Your task to perform on an android device: Search for vegetarian restaurants on Maps Image 0: 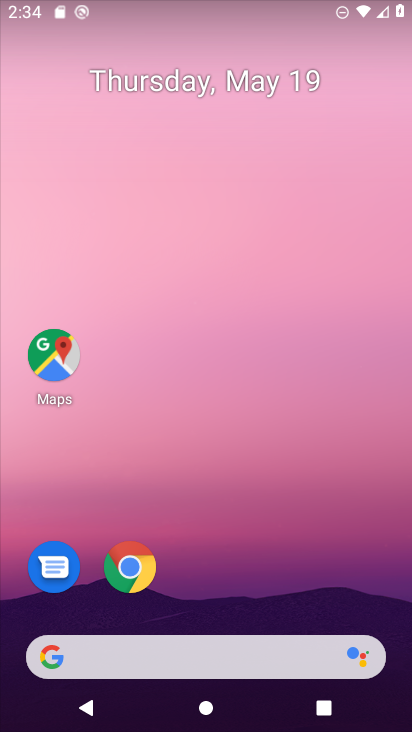
Step 0: click (43, 347)
Your task to perform on an android device: Search for vegetarian restaurants on Maps Image 1: 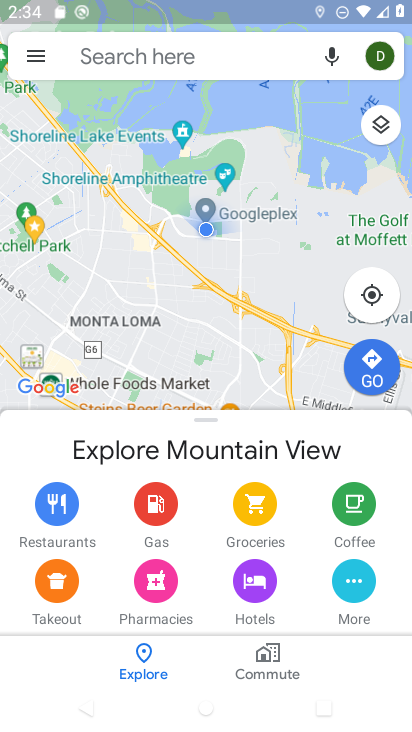
Step 1: click (220, 49)
Your task to perform on an android device: Search for vegetarian restaurants on Maps Image 2: 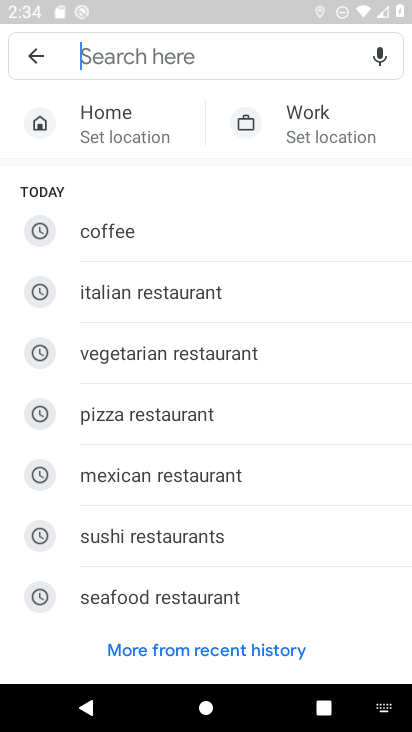
Step 2: click (176, 344)
Your task to perform on an android device: Search for vegetarian restaurants on Maps Image 3: 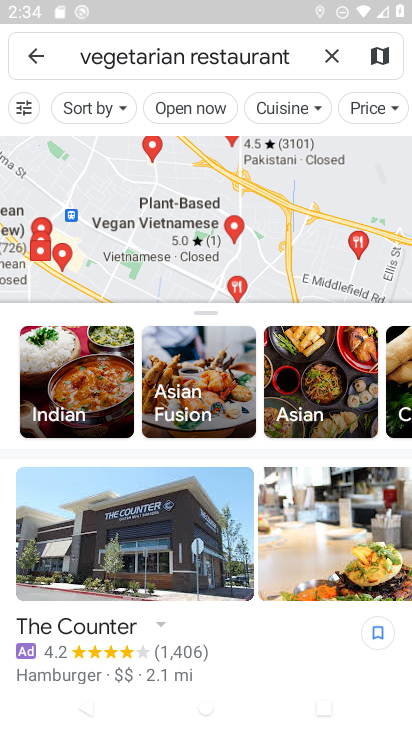
Step 3: task complete